Your task to perform on an android device: toggle airplane mode Image 0: 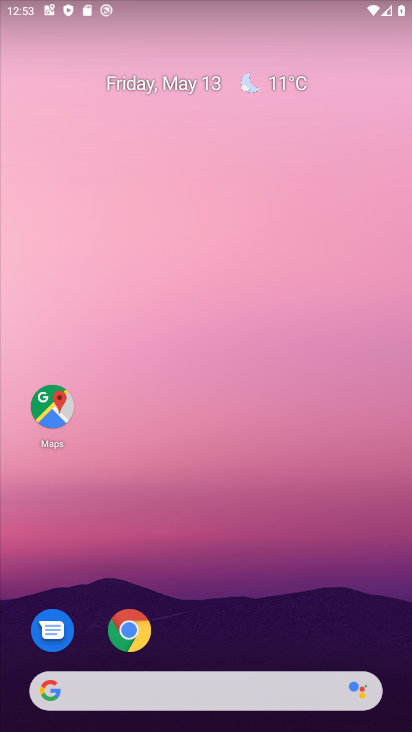
Step 0: drag from (345, 653) to (405, 5)
Your task to perform on an android device: toggle airplane mode Image 1: 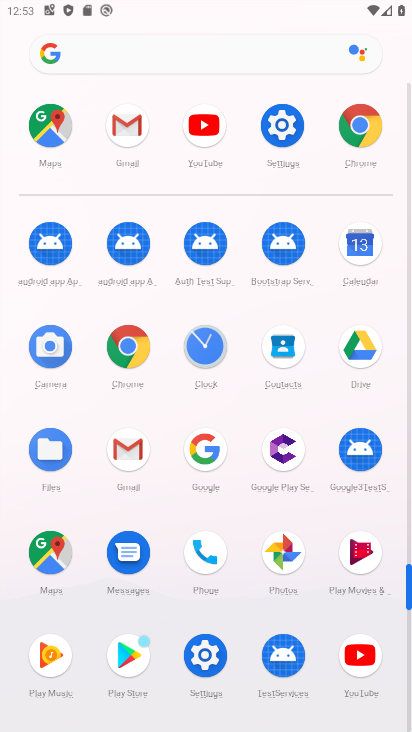
Step 1: click (284, 118)
Your task to perform on an android device: toggle airplane mode Image 2: 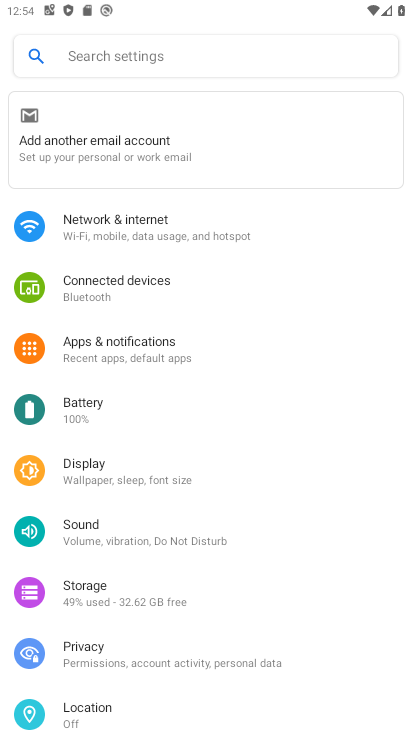
Step 2: click (123, 233)
Your task to perform on an android device: toggle airplane mode Image 3: 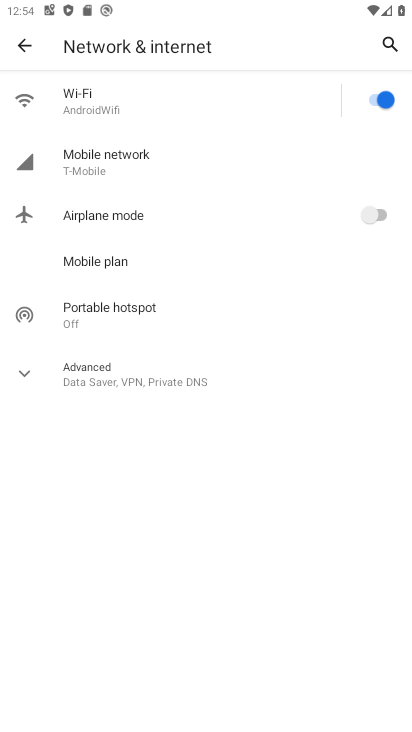
Step 3: click (376, 217)
Your task to perform on an android device: toggle airplane mode Image 4: 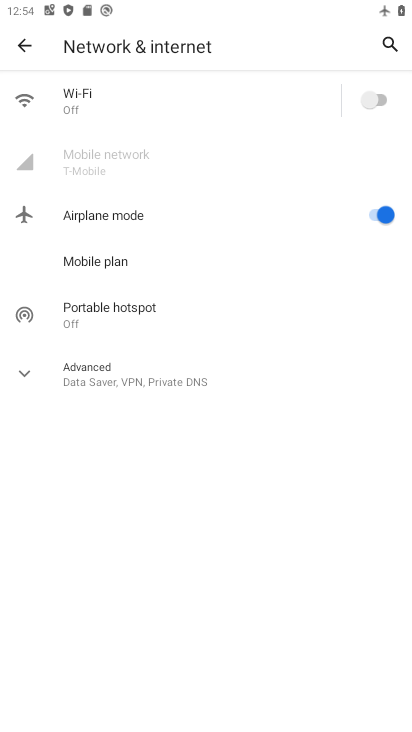
Step 4: task complete